Your task to perform on an android device: Play the last video I watched on Youtube Image 0: 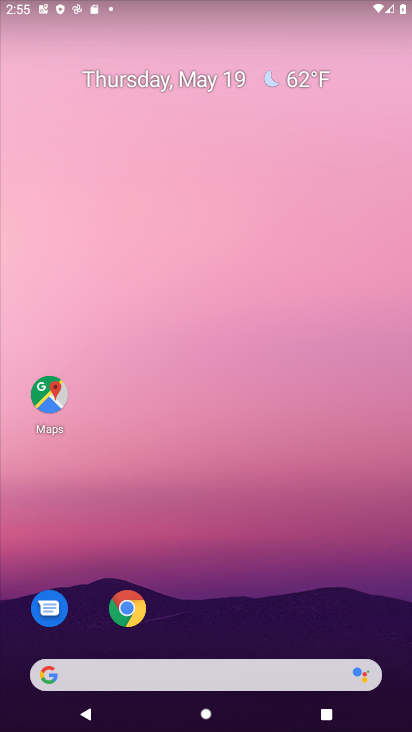
Step 0: drag from (232, 617) to (209, 61)
Your task to perform on an android device: Play the last video I watched on Youtube Image 1: 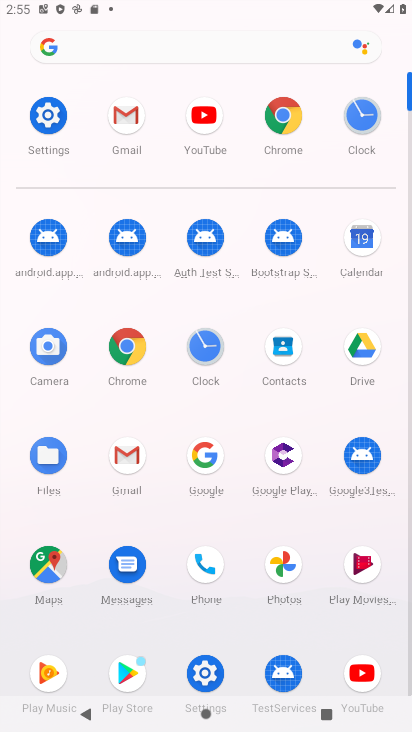
Step 1: click (344, 665)
Your task to perform on an android device: Play the last video I watched on Youtube Image 2: 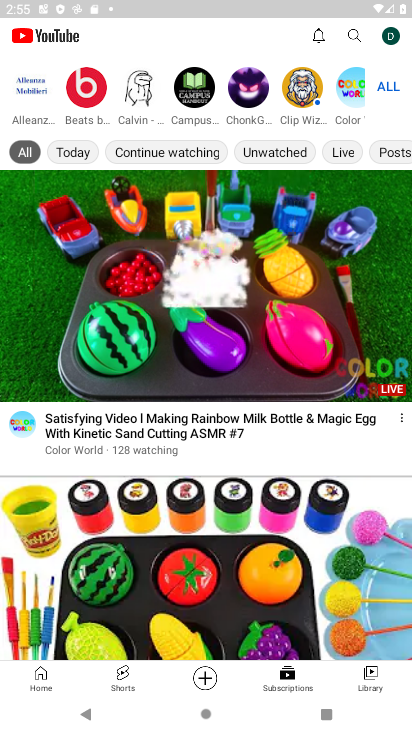
Step 2: click (349, 681)
Your task to perform on an android device: Play the last video I watched on Youtube Image 3: 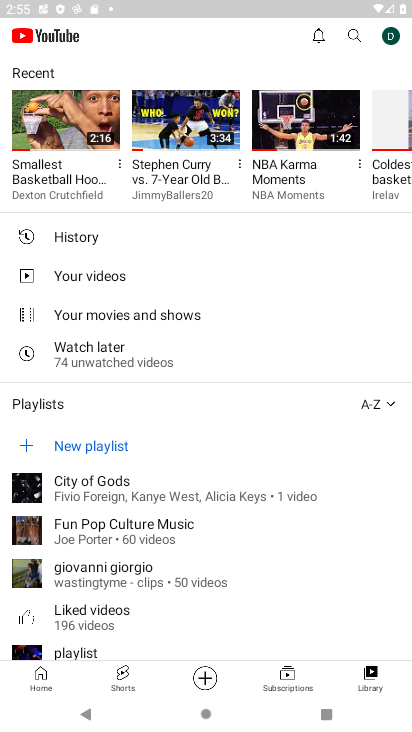
Step 3: task complete